Your task to perform on an android device: snooze an email in the gmail app Image 0: 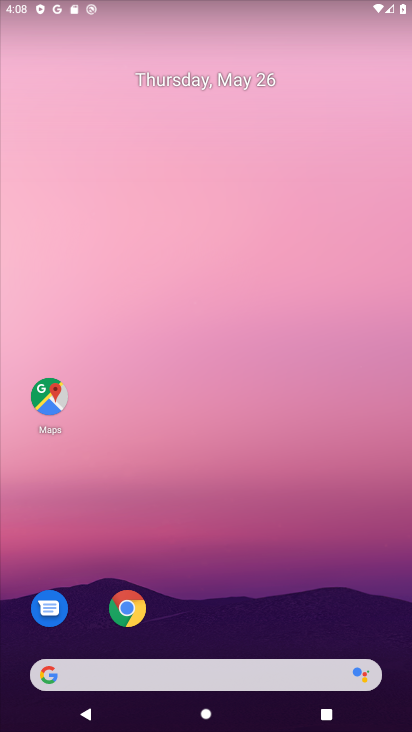
Step 0: drag from (246, 684) to (203, 52)
Your task to perform on an android device: snooze an email in the gmail app Image 1: 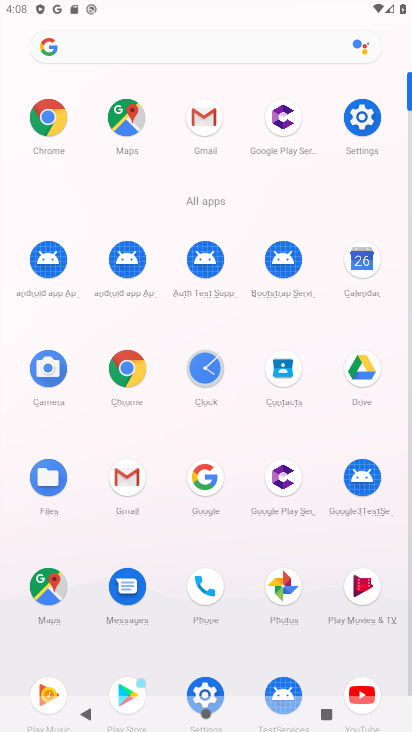
Step 1: click (122, 487)
Your task to perform on an android device: snooze an email in the gmail app Image 2: 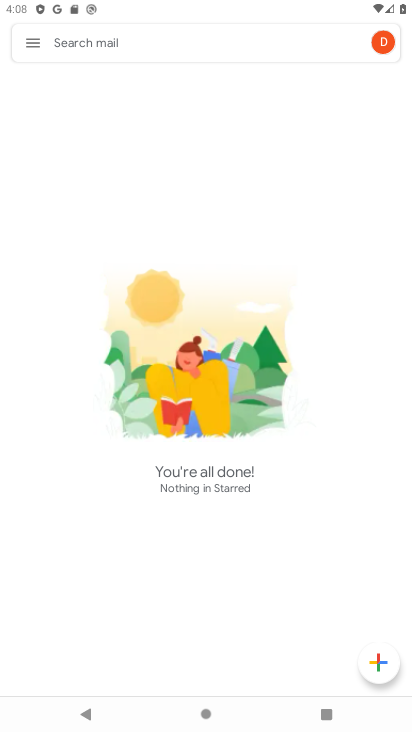
Step 2: click (45, 45)
Your task to perform on an android device: snooze an email in the gmail app Image 3: 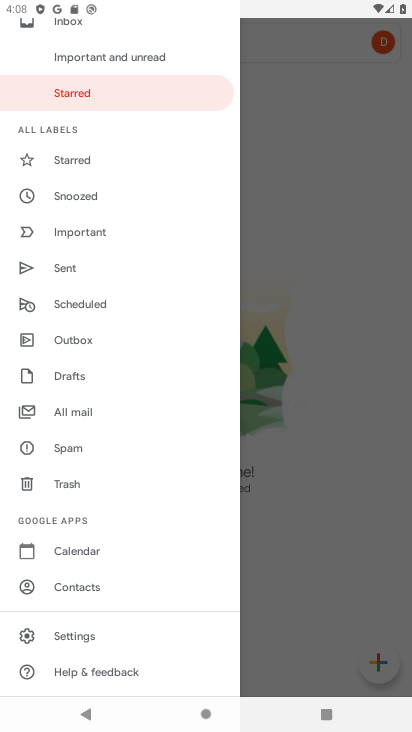
Step 3: click (82, 198)
Your task to perform on an android device: snooze an email in the gmail app Image 4: 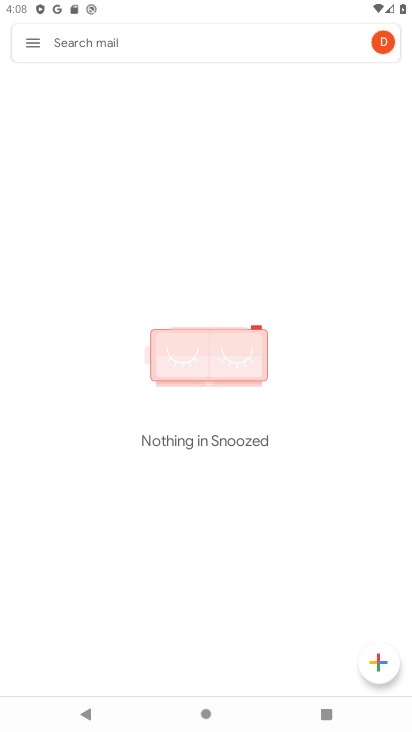
Step 4: task complete